Your task to perform on an android device: Search for Italian restaurants on Maps Image 0: 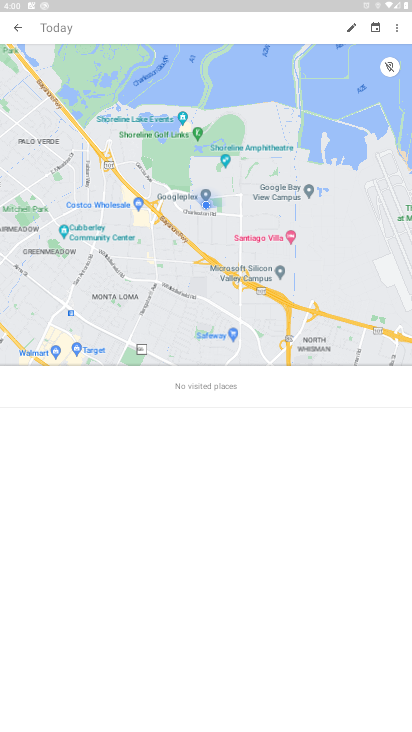
Step 0: press home button
Your task to perform on an android device: Search for Italian restaurants on Maps Image 1: 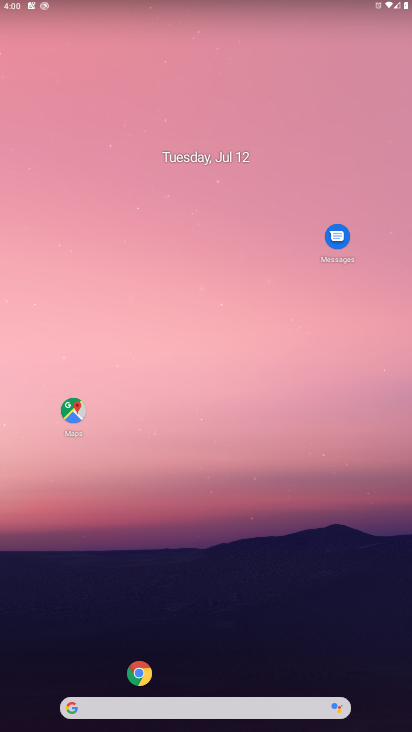
Step 1: click (81, 391)
Your task to perform on an android device: Search for Italian restaurants on Maps Image 2: 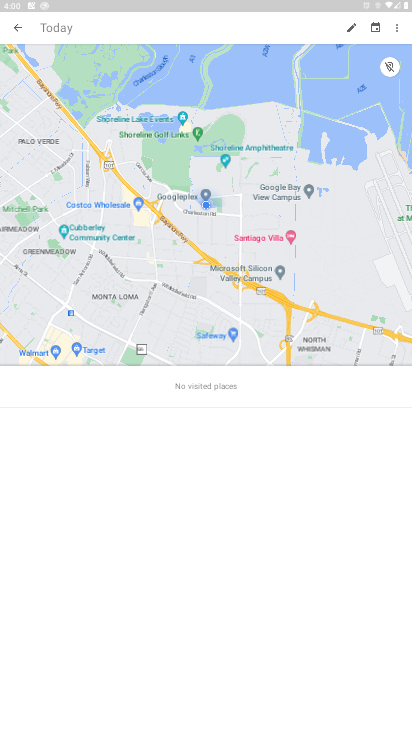
Step 2: click (58, 32)
Your task to perform on an android device: Search for Italian restaurants on Maps Image 3: 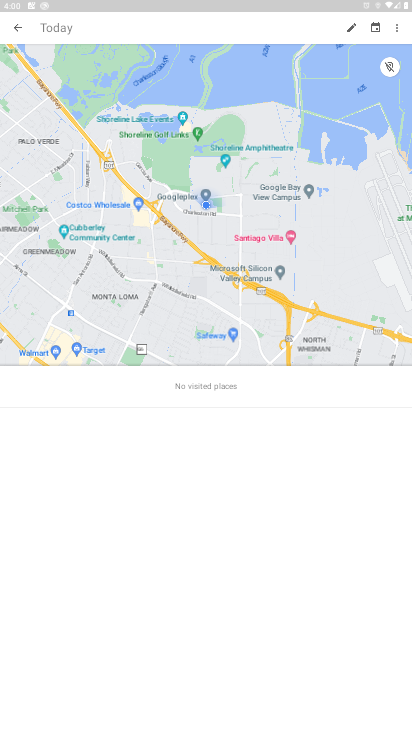
Step 3: click (61, 29)
Your task to perform on an android device: Search for Italian restaurants on Maps Image 4: 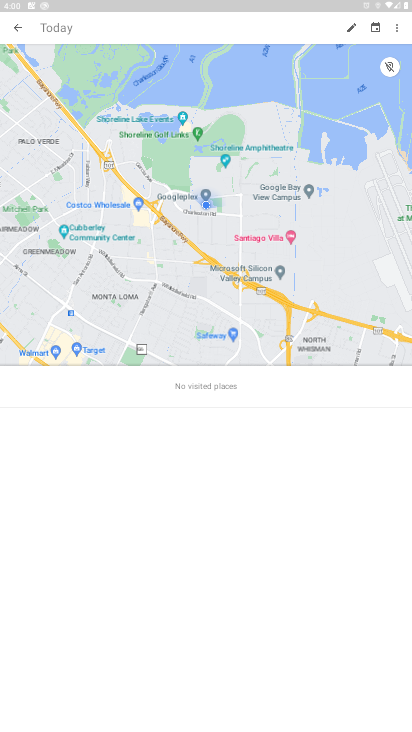
Step 4: click (65, 25)
Your task to perform on an android device: Search for Italian restaurants on Maps Image 5: 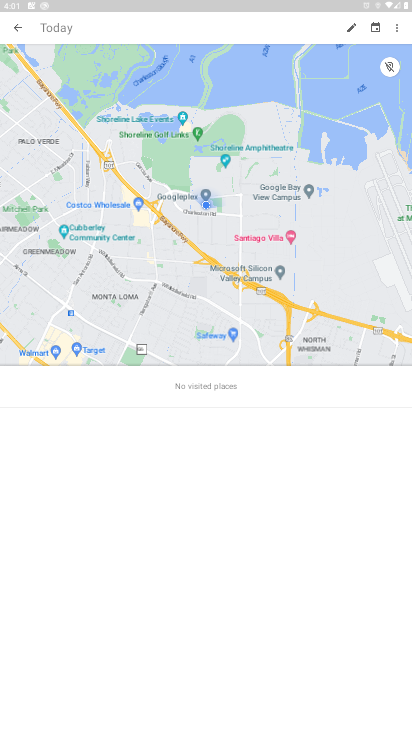
Step 5: click (38, 20)
Your task to perform on an android device: Search for Italian restaurants on Maps Image 6: 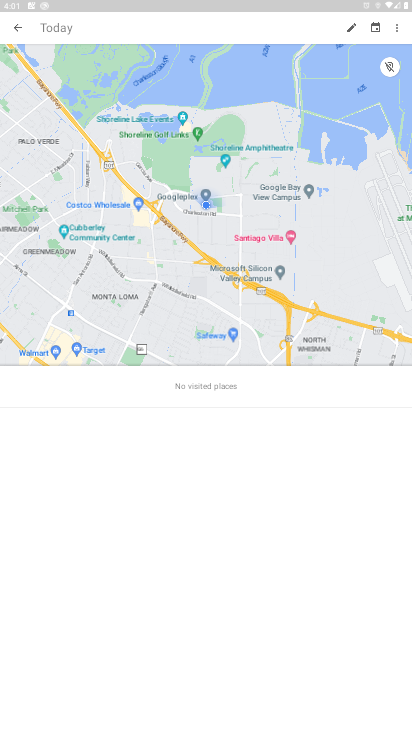
Step 6: click (39, 25)
Your task to perform on an android device: Search for Italian restaurants on Maps Image 7: 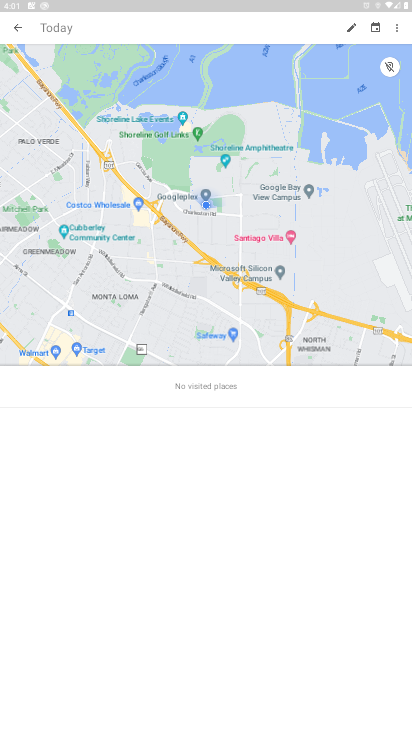
Step 7: click (20, 29)
Your task to perform on an android device: Search for Italian restaurants on Maps Image 8: 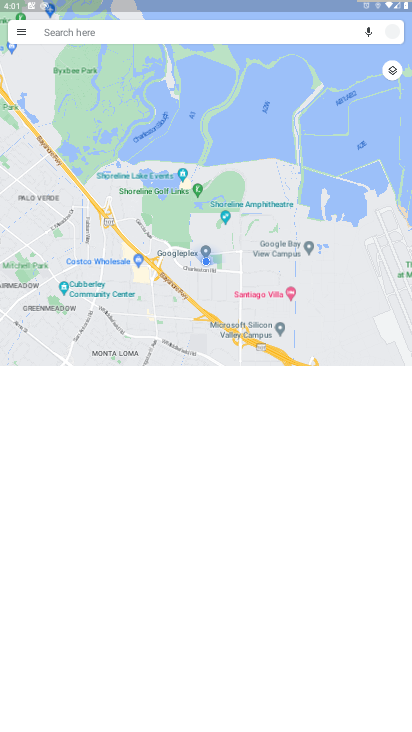
Step 8: click (70, 23)
Your task to perform on an android device: Search for Italian restaurants on Maps Image 9: 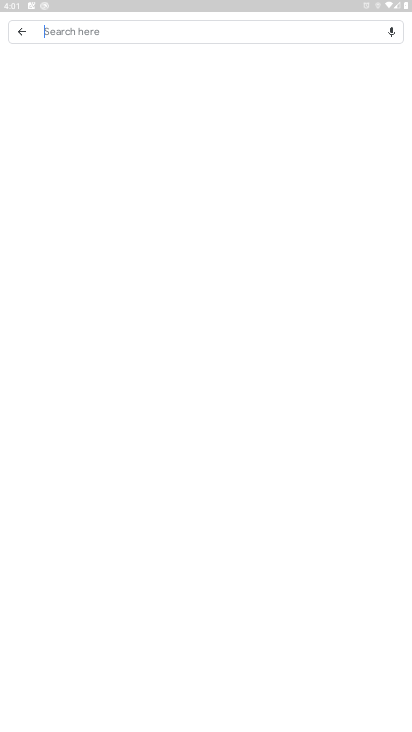
Step 9: click (55, 27)
Your task to perform on an android device: Search for Italian restaurants on Maps Image 10: 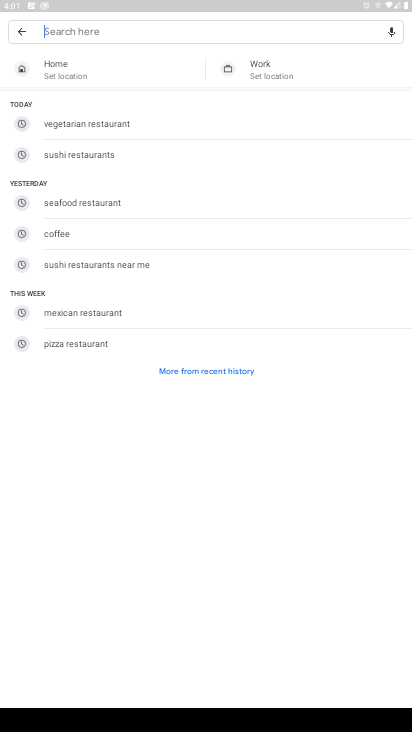
Step 10: type "Italian restaurants "
Your task to perform on an android device: Search for Italian restaurants on Maps Image 11: 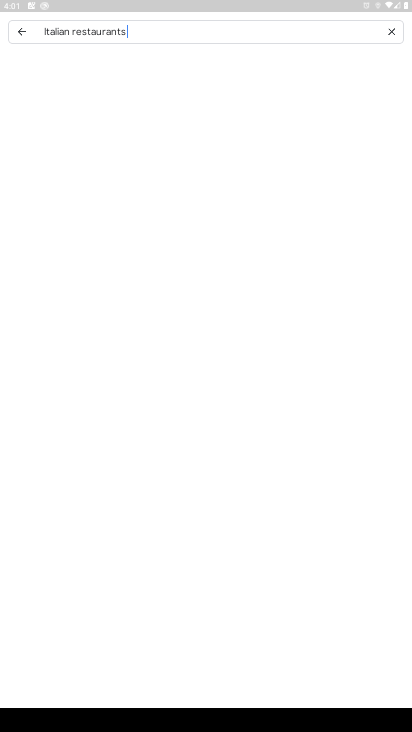
Step 11: type ""
Your task to perform on an android device: Search for Italian restaurants on Maps Image 12: 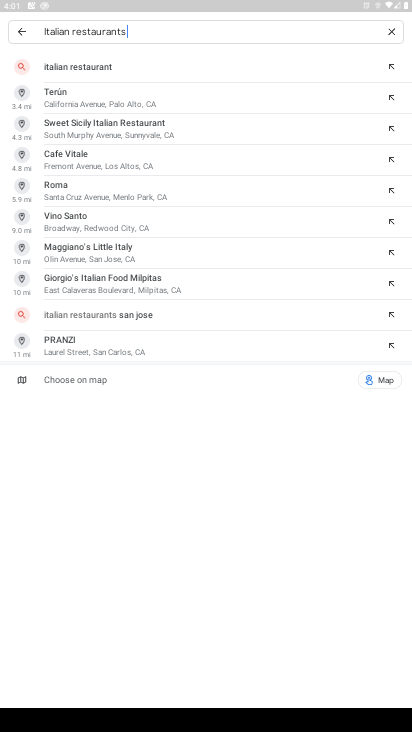
Step 12: click (69, 61)
Your task to perform on an android device: Search for Italian restaurants on Maps Image 13: 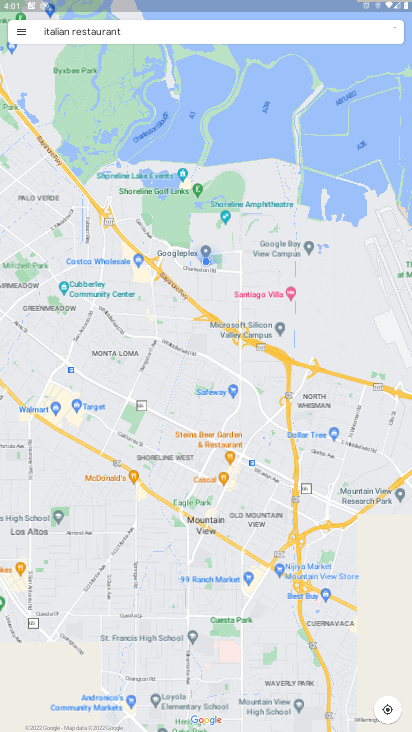
Step 13: task complete